Your task to perform on an android device: Open Google Image 0: 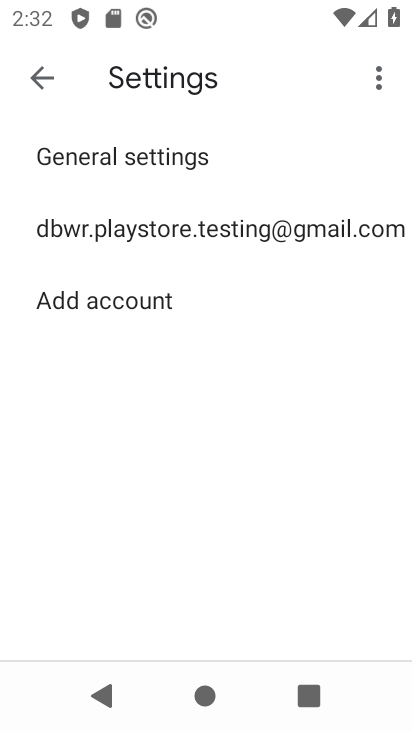
Step 0: press back button
Your task to perform on an android device: Open Google Image 1: 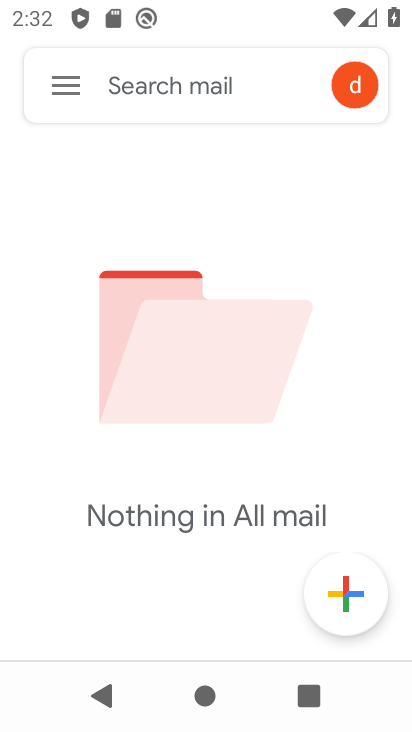
Step 1: press home button
Your task to perform on an android device: Open Google Image 2: 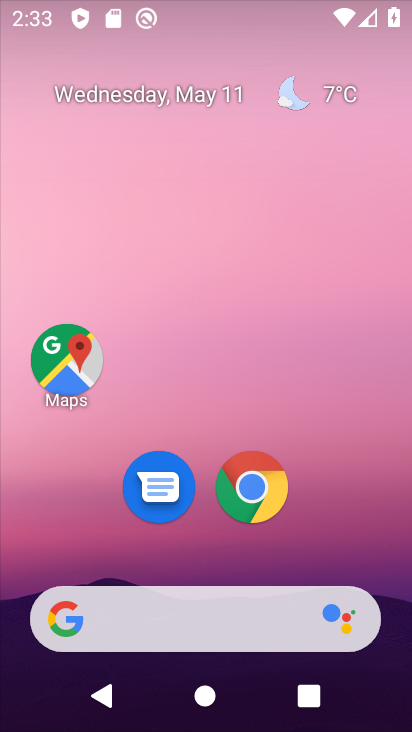
Step 2: drag from (193, 557) to (280, 29)
Your task to perform on an android device: Open Google Image 3: 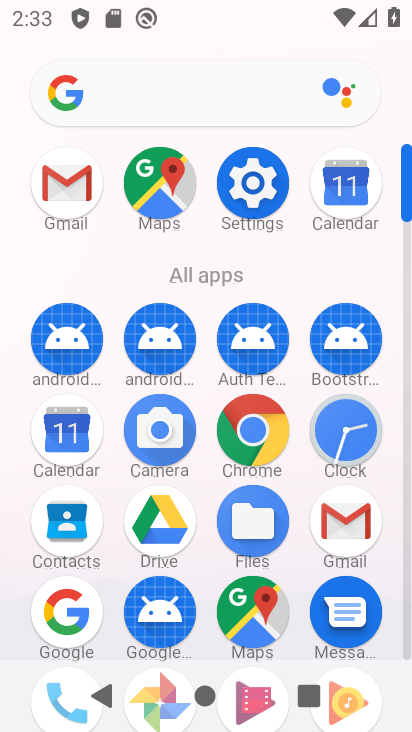
Step 3: click (73, 607)
Your task to perform on an android device: Open Google Image 4: 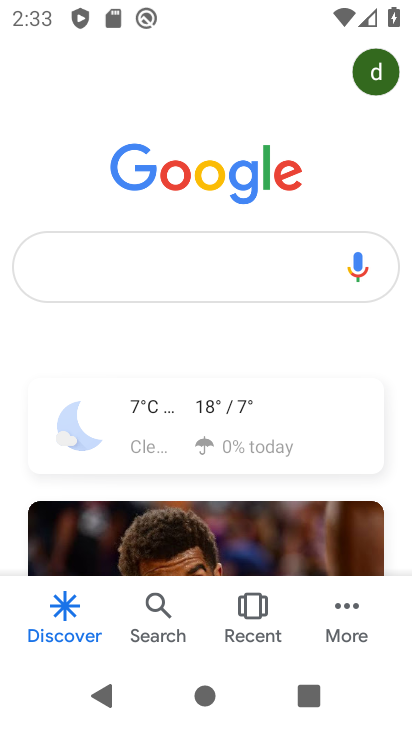
Step 4: task complete